Your task to perform on an android device: change notifications settings Image 0: 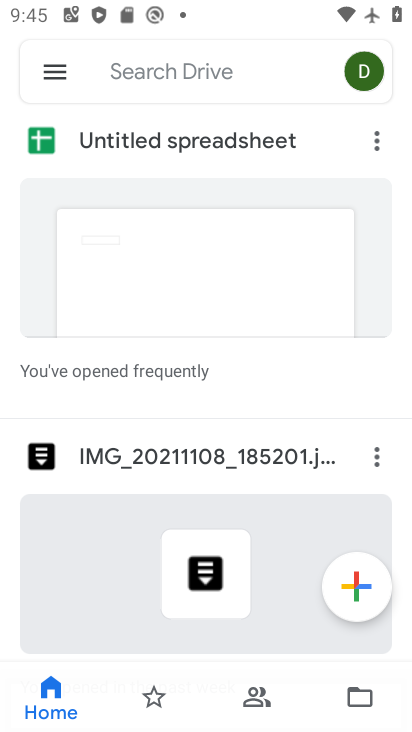
Step 0: press home button
Your task to perform on an android device: change notifications settings Image 1: 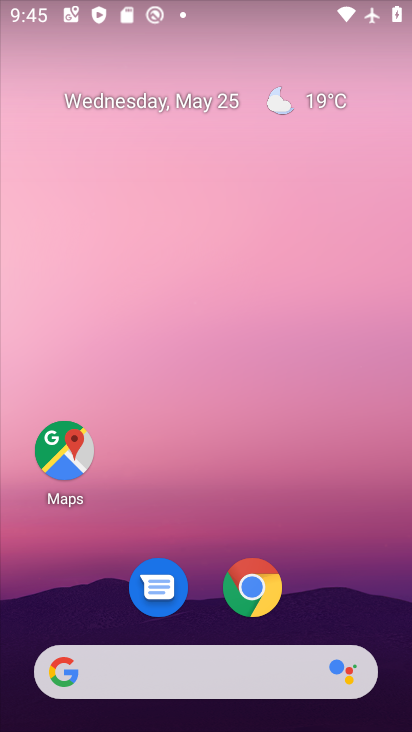
Step 1: drag from (379, 628) to (307, 219)
Your task to perform on an android device: change notifications settings Image 2: 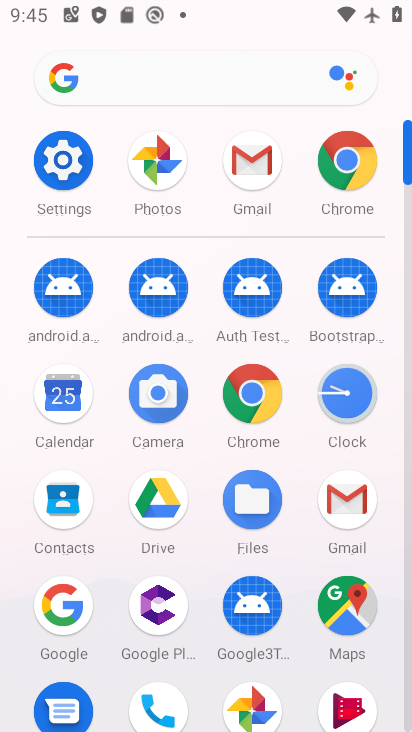
Step 2: click (408, 717)
Your task to perform on an android device: change notifications settings Image 3: 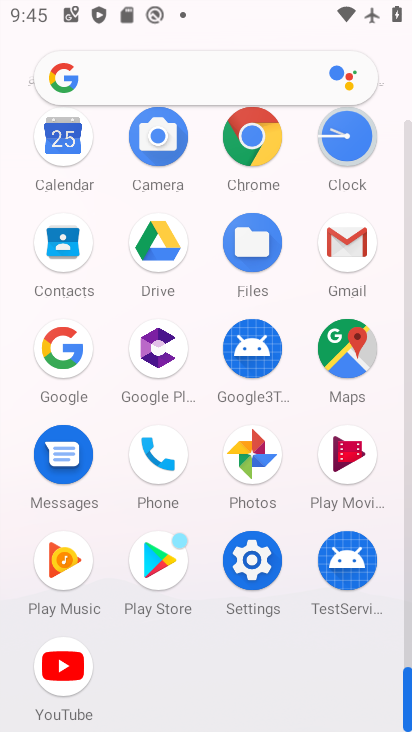
Step 3: click (254, 558)
Your task to perform on an android device: change notifications settings Image 4: 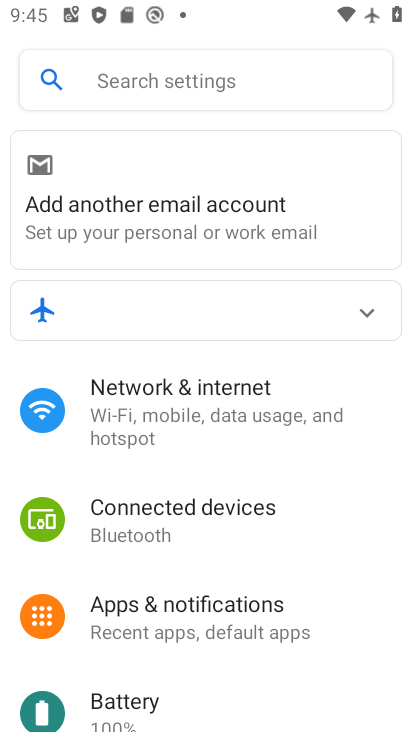
Step 4: click (167, 586)
Your task to perform on an android device: change notifications settings Image 5: 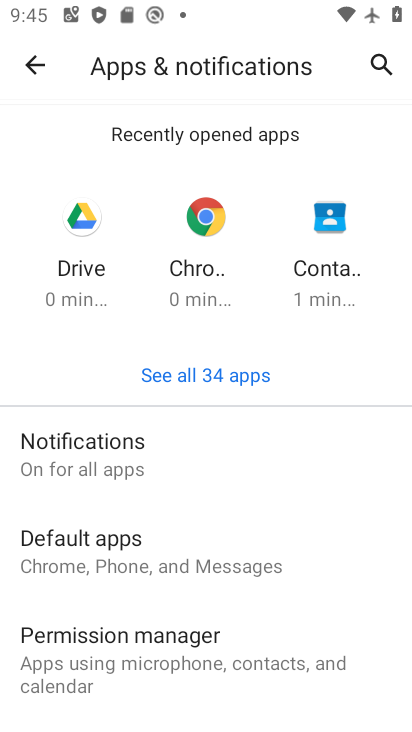
Step 5: click (82, 454)
Your task to perform on an android device: change notifications settings Image 6: 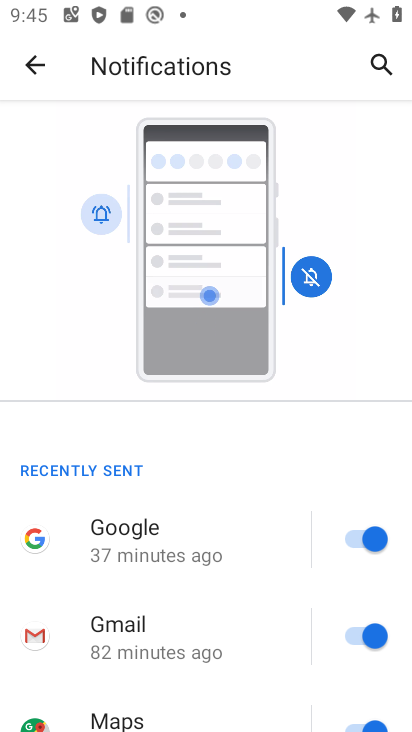
Step 6: drag from (265, 670) to (230, 149)
Your task to perform on an android device: change notifications settings Image 7: 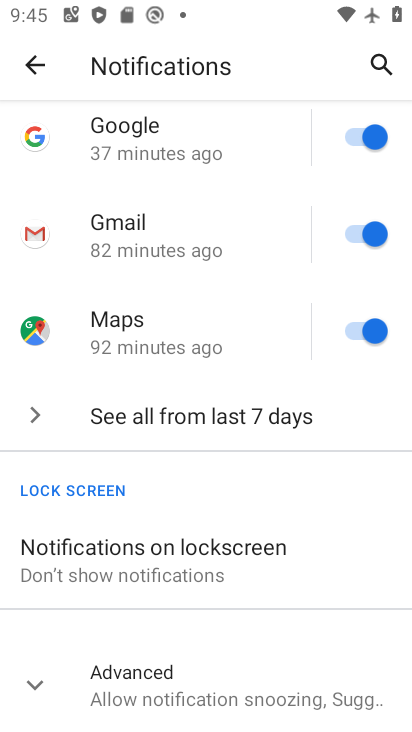
Step 7: drag from (298, 577) to (270, 227)
Your task to perform on an android device: change notifications settings Image 8: 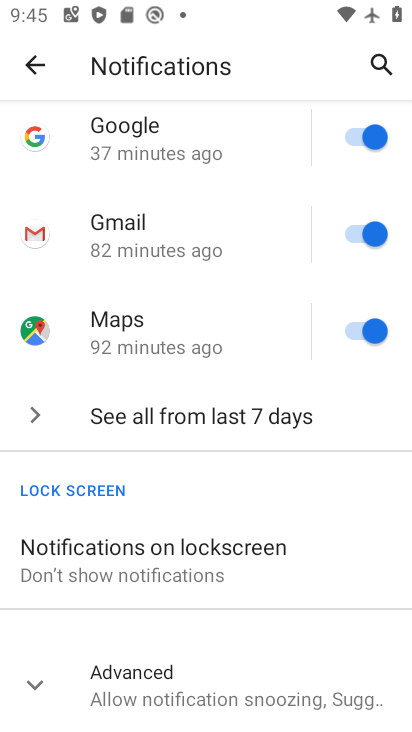
Step 8: click (31, 682)
Your task to perform on an android device: change notifications settings Image 9: 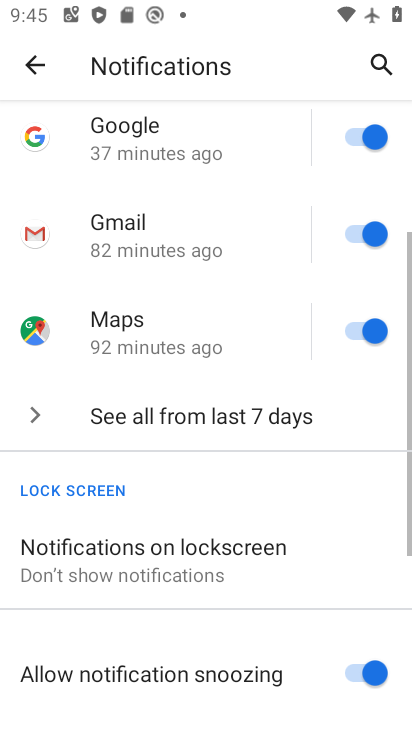
Step 9: drag from (278, 698) to (247, 238)
Your task to perform on an android device: change notifications settings Image 10: 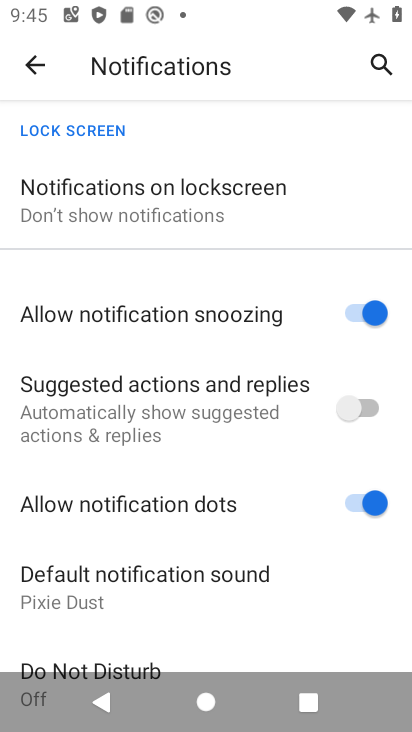
Step 10: click (357, 506)
Your task to perform on an android device: change notifications settings Image 11: 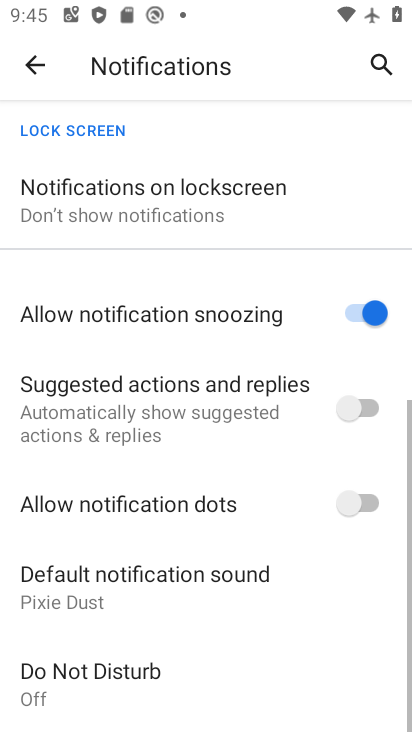
Step 11: click (348, 316)
Your task to perform on an android device: change notifications settings Image 12: 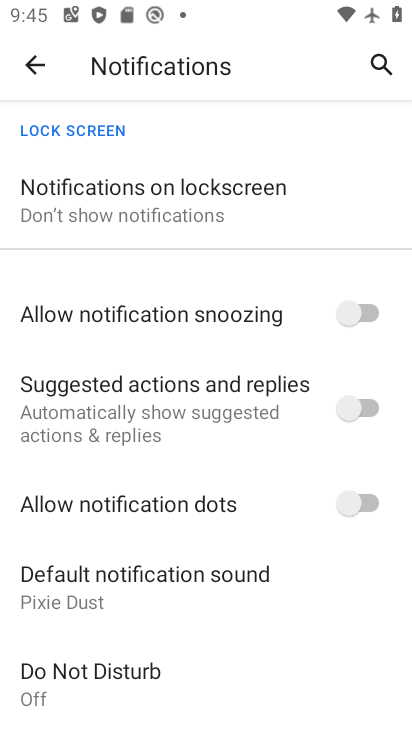
Step 12: click (369, 398)
Your task to perform on an android device: change notifications settings Image 13: 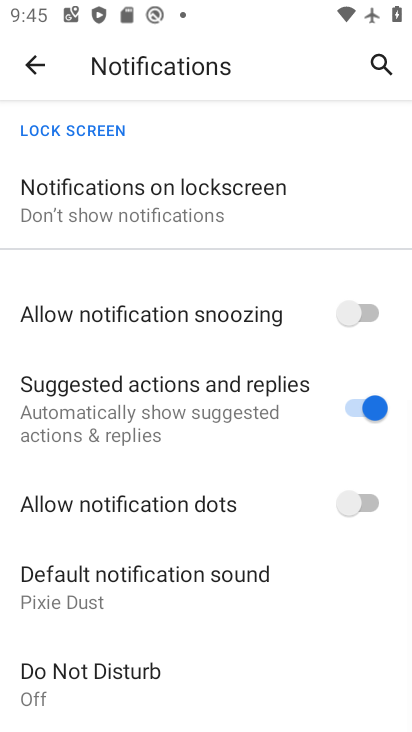
Step 13: task complete